Your task to perform on an android device: all mails in gmail Image 0: 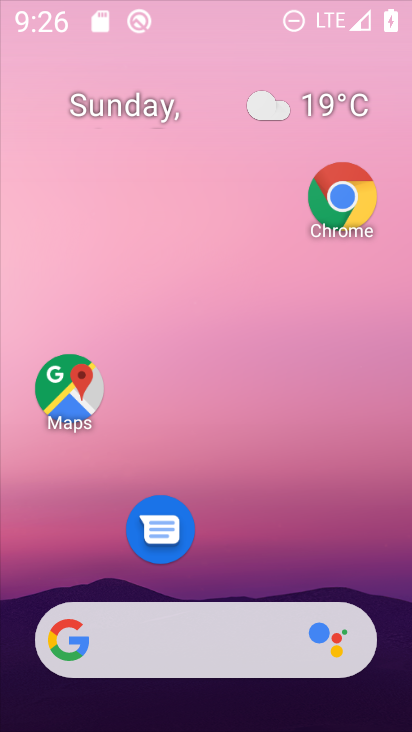
Step 0: press home button
Your task to perform on an android device: all mails in gmail Image 1: 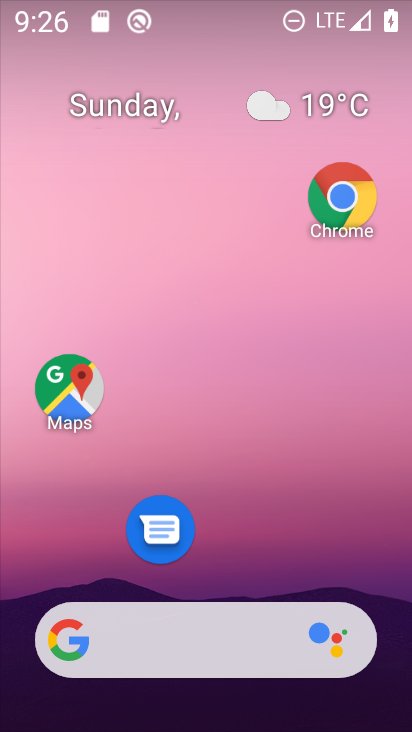
Step 1: drag from (230, 579) to (245, 64)
Your task to perform on an android device: all mails in gmail Image 2: 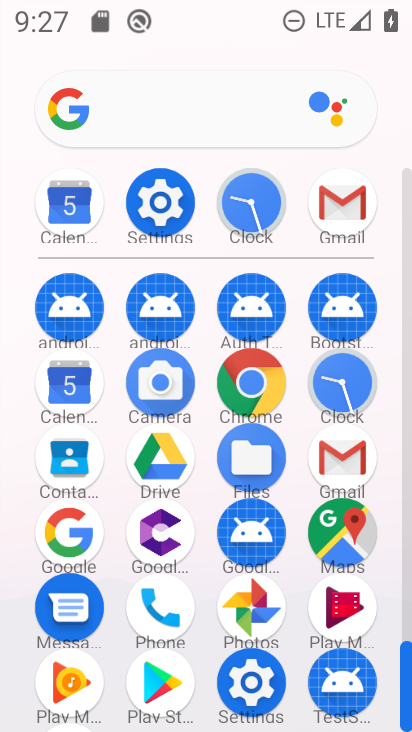
Step 2: click (339, 195)
Your task to perform on an android device: all mails in gmail Image 3: 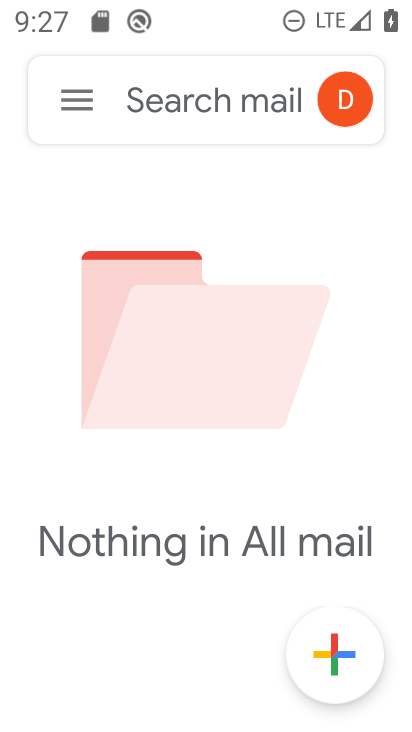
Step 3: task complete